Your task to perform on an android device: Turn on the flashlight Image 0: 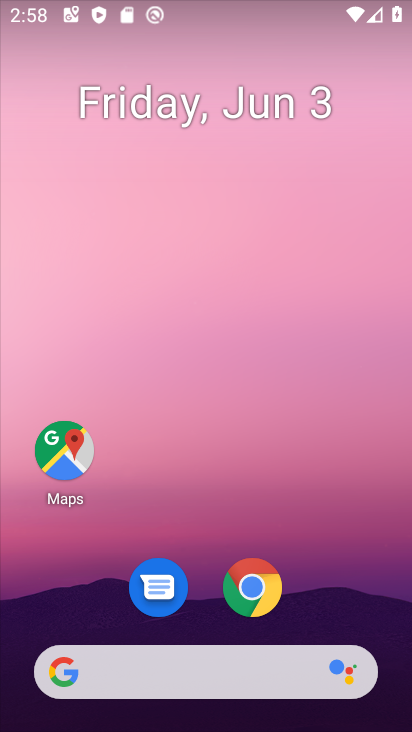
Step 0: drag from (212, 703) to (216, 136)
Your task to perform on an android device: Turn on the flashlight Image 1: 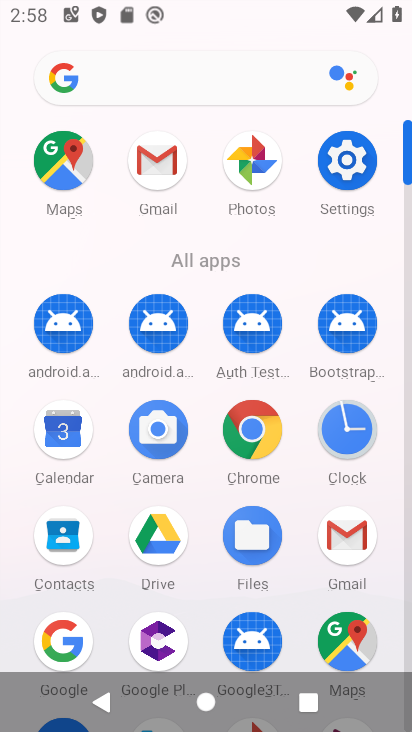
Step 1: click (349, 154)
Your task to perform on an android device: Turn on the flashlight Image 2: 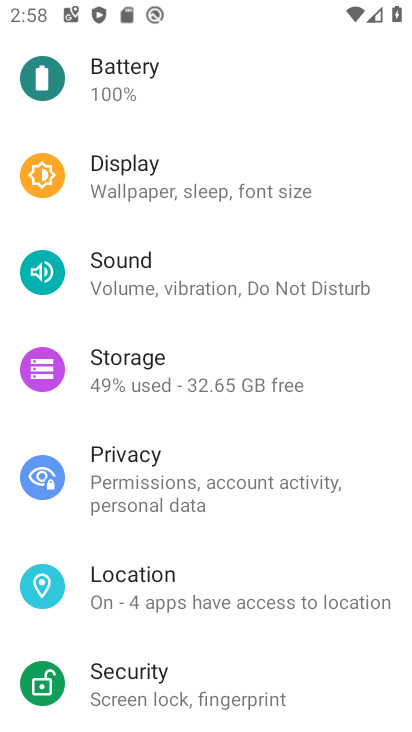
Step 2: task complete